Your task to perform on an android device: toggle wifi Image 0: 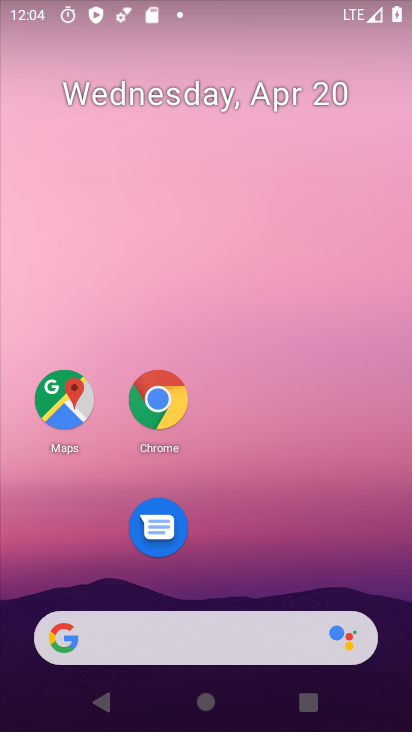
Step 0: drag from (298, 667) to (266, 289)
Your task to perform on an android device: toggle wifi Image 1: 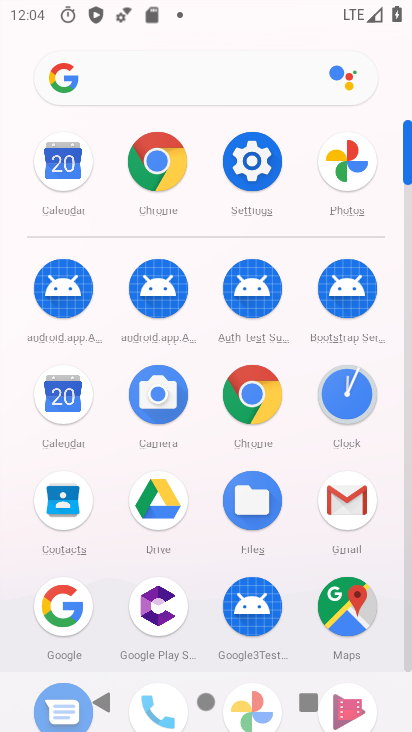
Step 1: click (258, 147)
Your task to perform on an android device: toggle wifi Image 2: 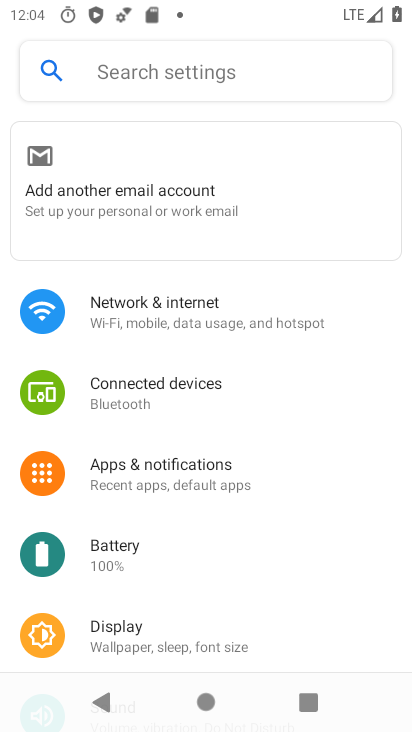
Step 2: click (158, 299)
Your task to perform on an android device: toggle wifi Image 3: 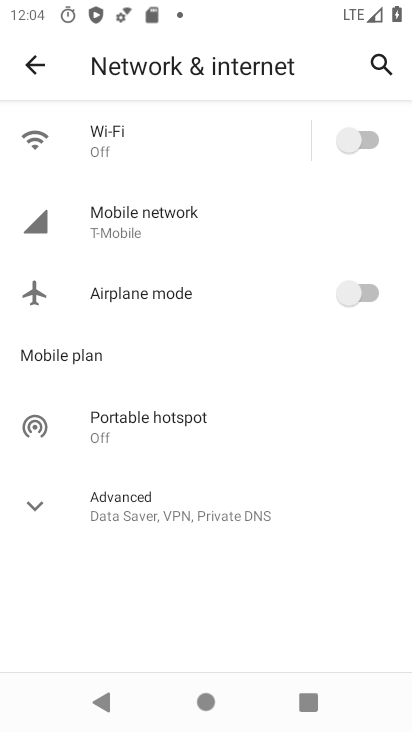
Step 3: click (88, 138)
Your task to perform on an android device: toggle wifi Image 4: 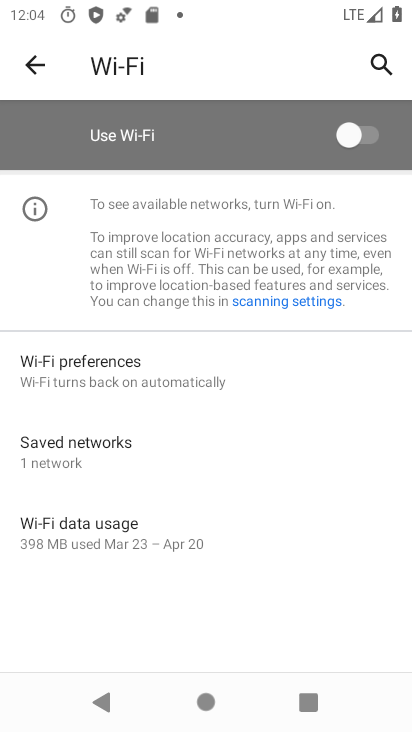
Step 4: task complete